Your task to perform on an android device: clear history in the chrome app Image 0: 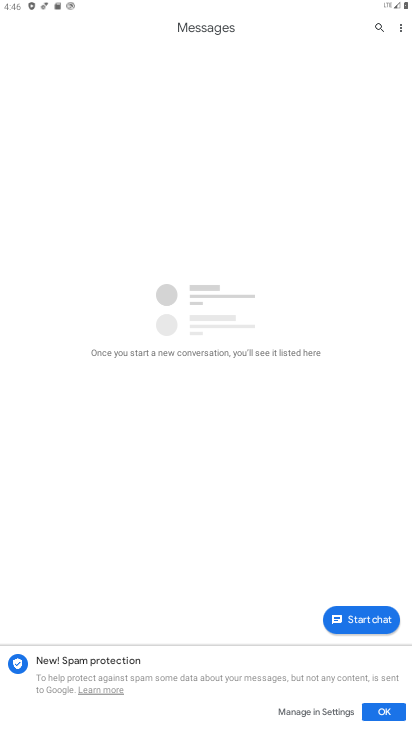
Step 0: press home button
Your task to perform on an android device: clear history in the chrome app Image 1: 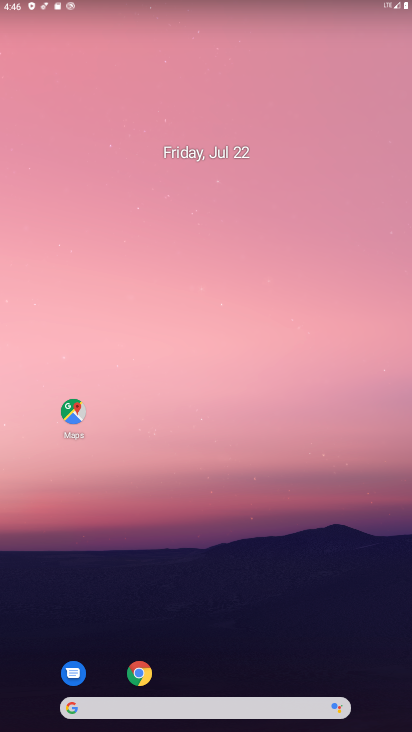
Step 1: click (138, 679)
Your task to perform on an android device: clear history in the chrome app Image 2: 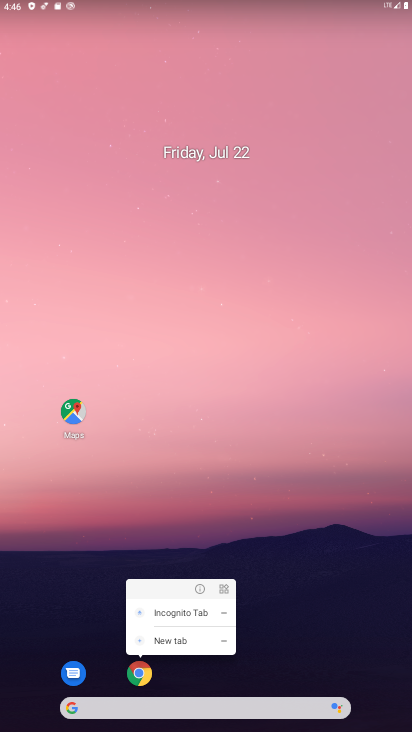
Step 2: click (137, 676)
Your task to perform on an android device: clear history in the chrome app Image 3: 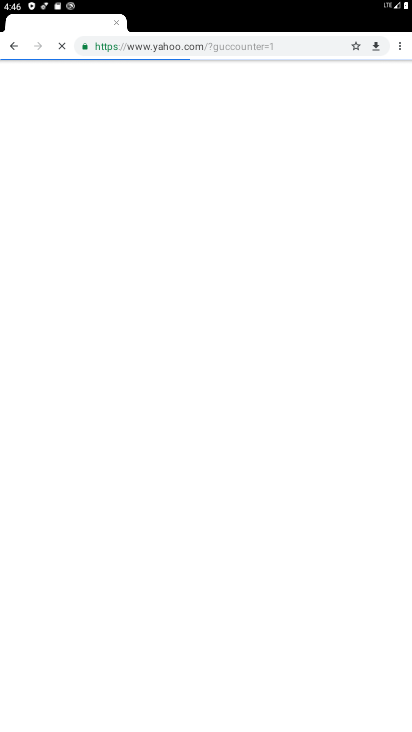
Step 3: drag from (395, 45) to (325, 279)
Your task to perform on an android device: clear history in the chrome app Image 4: 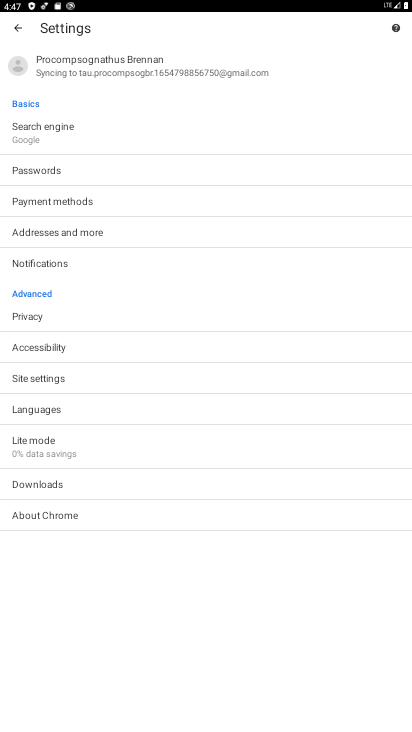
Step 4: click (36, 315)
Your task to perform on an android device: clear history in the chrome app Image 5: 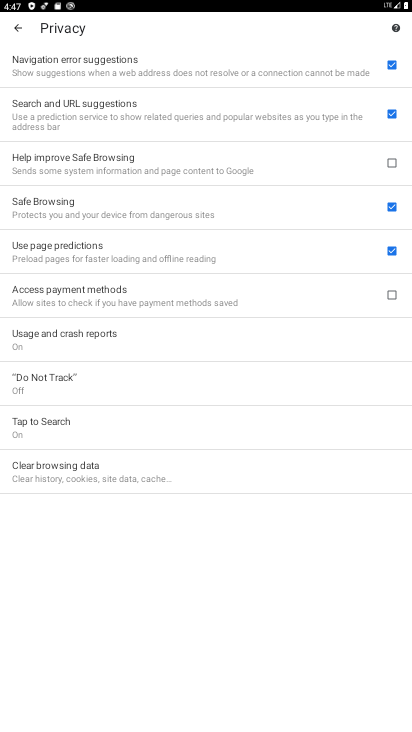
Step 5: click (41, 475)
Your task to perform on an android device: clear history in the chrome app Image 6: 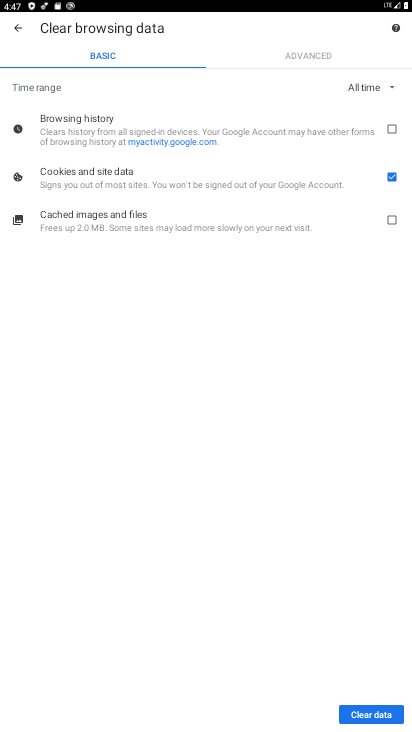
Step 6: click (398, 126)
Your task to perform on an android device: clear history in the chrome app Image 7: 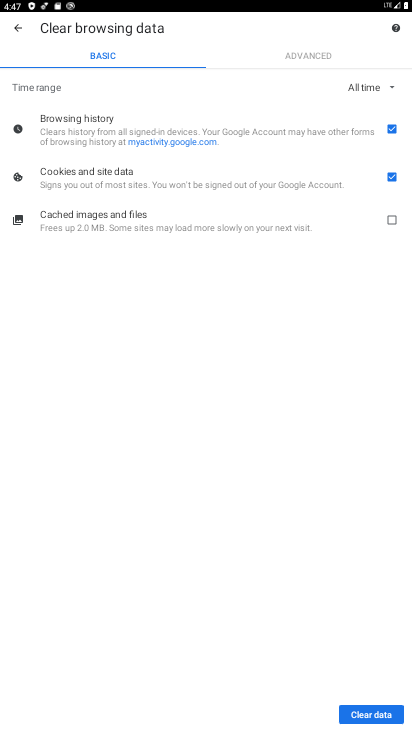
Step 7: click (391, 175)
Your task to perform on an android device: clear history in the chrome app Image 8: 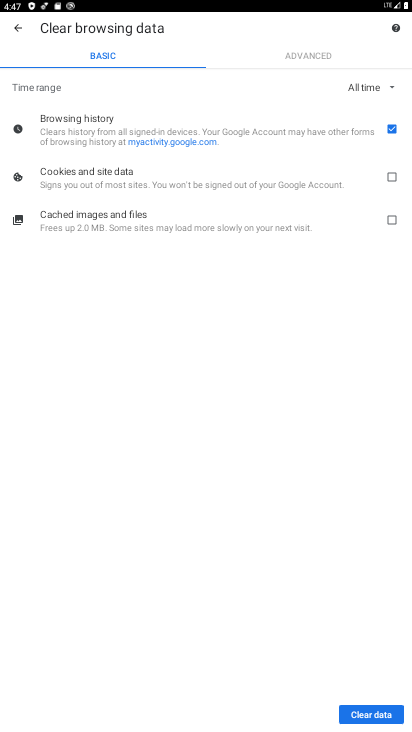
Step 8: click (372, 718)
Your task to perform on an android device: clear history in the chrome app Image 9: 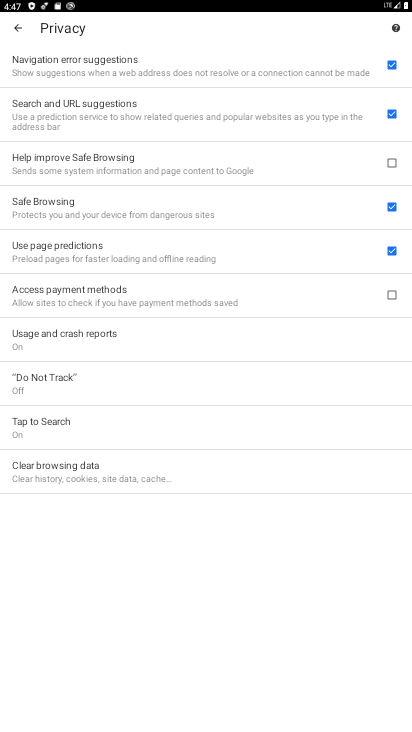
Step 9: task complete